Your task to perform on an android device: Open my contact list Image 0: 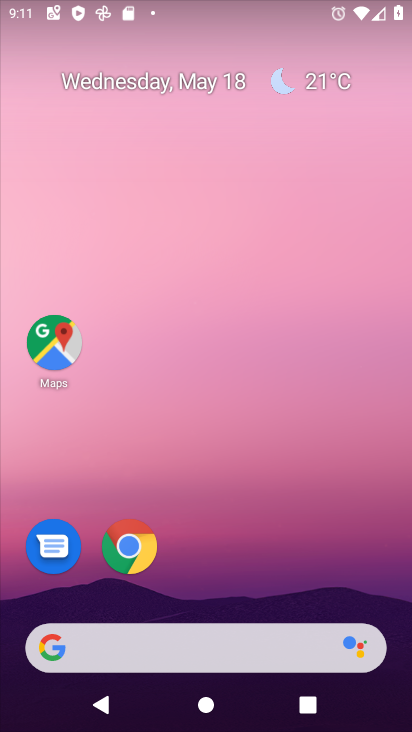
Step 0: click (360, 511)
Your task to perform on an android device: Open my contact list Image 1: 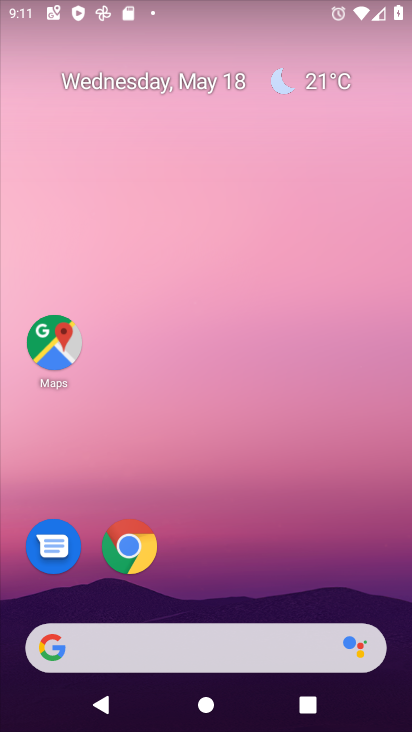
Step 1: drag from (406, 644) to (313, 24)
Your task to perform on an android device: Open my contact list Image 2: 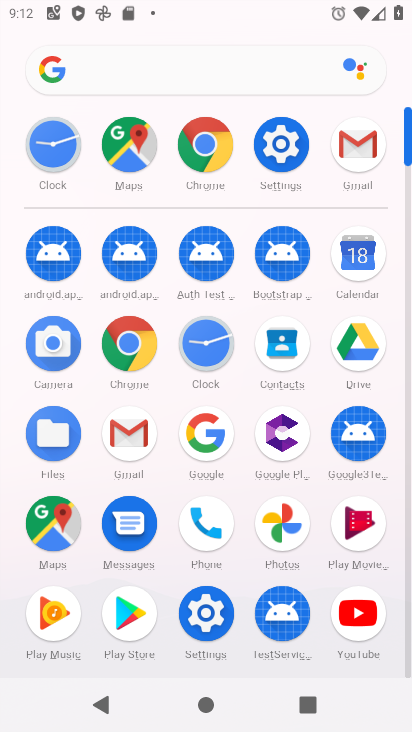
Step 2: click (296, 345)
Your task to perform on an android device: Open my contact list Image 3: 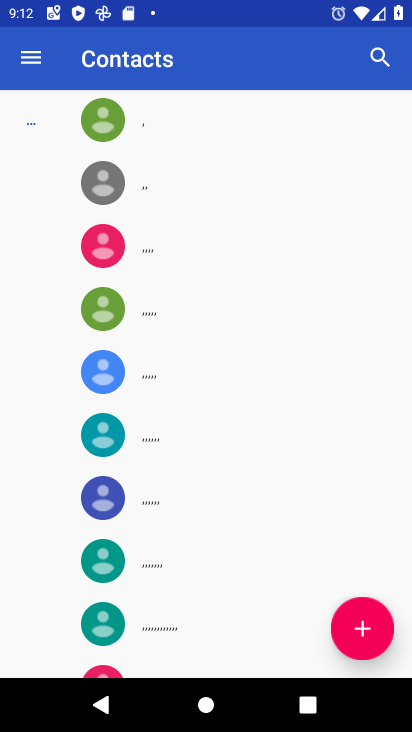
Step 3: task complete